Your task to perform on an android device: Open Google Image 0: 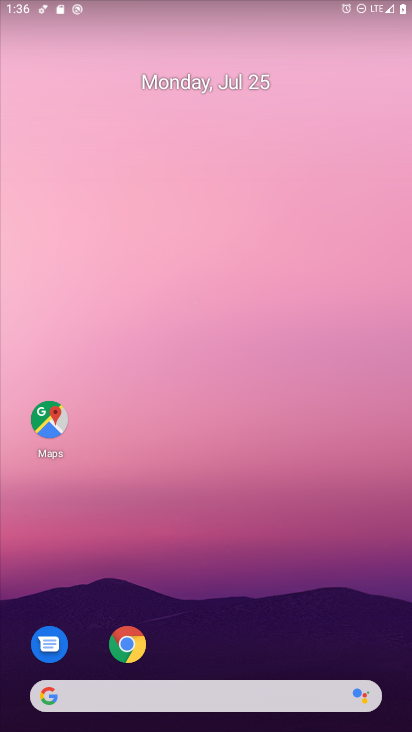
Step 0: drag from (259, 640) to (272, 75)
Your task to perform on an android device: Open Google Image 1: 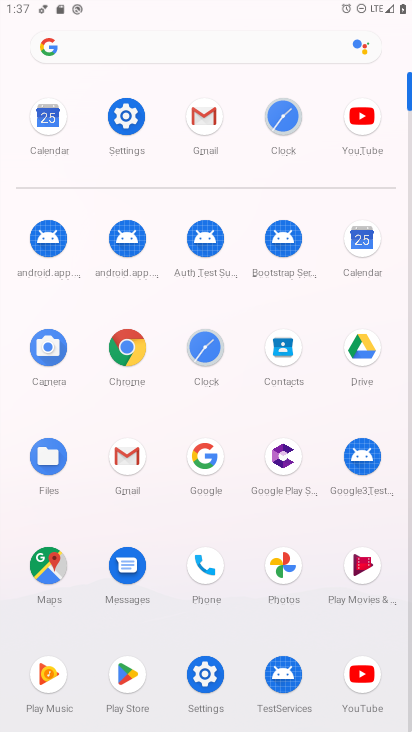
Step 1: click (207, 457)
Your task to perform on an android device: Open Google Image 2: 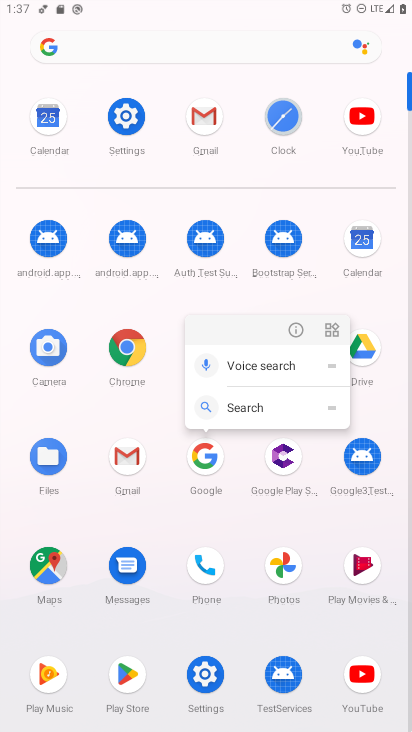
Step 2: click (205, 457)
Your task to perform on an android device: Open Google Image 3: 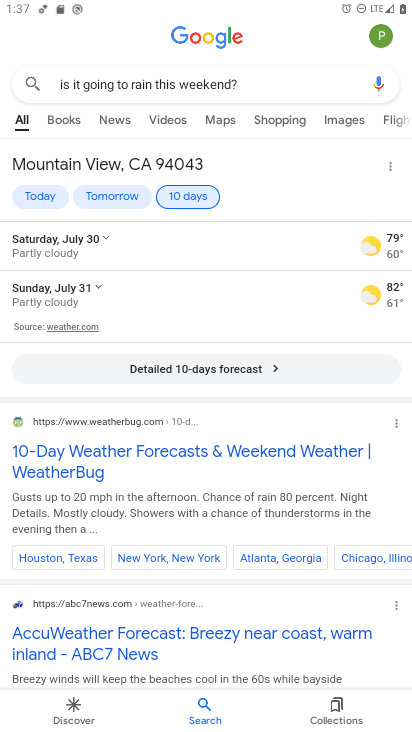
Step 3: task complete